Your task to perform on an android device: Go to display settings Image 0: 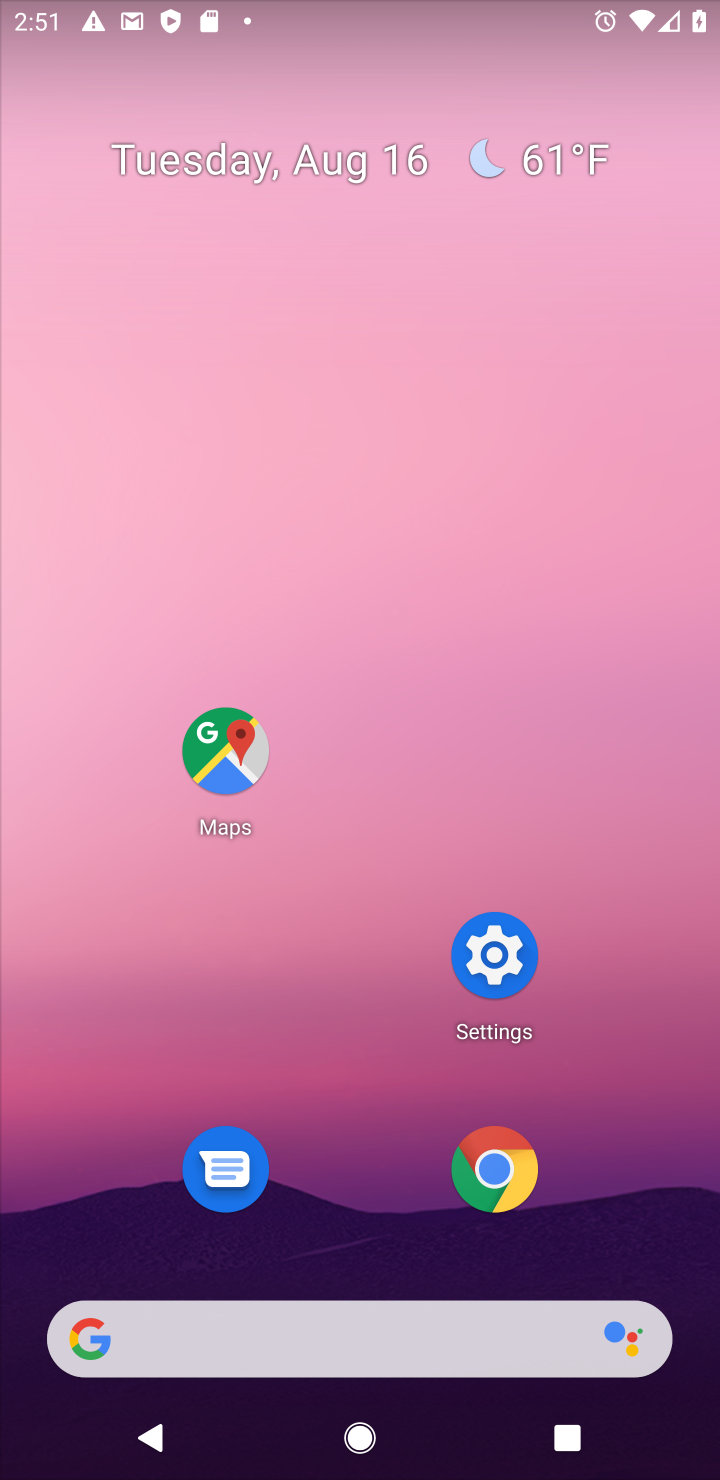
Step 0: press home button
Your task to perform on an android device: Go to display settings Image 1: 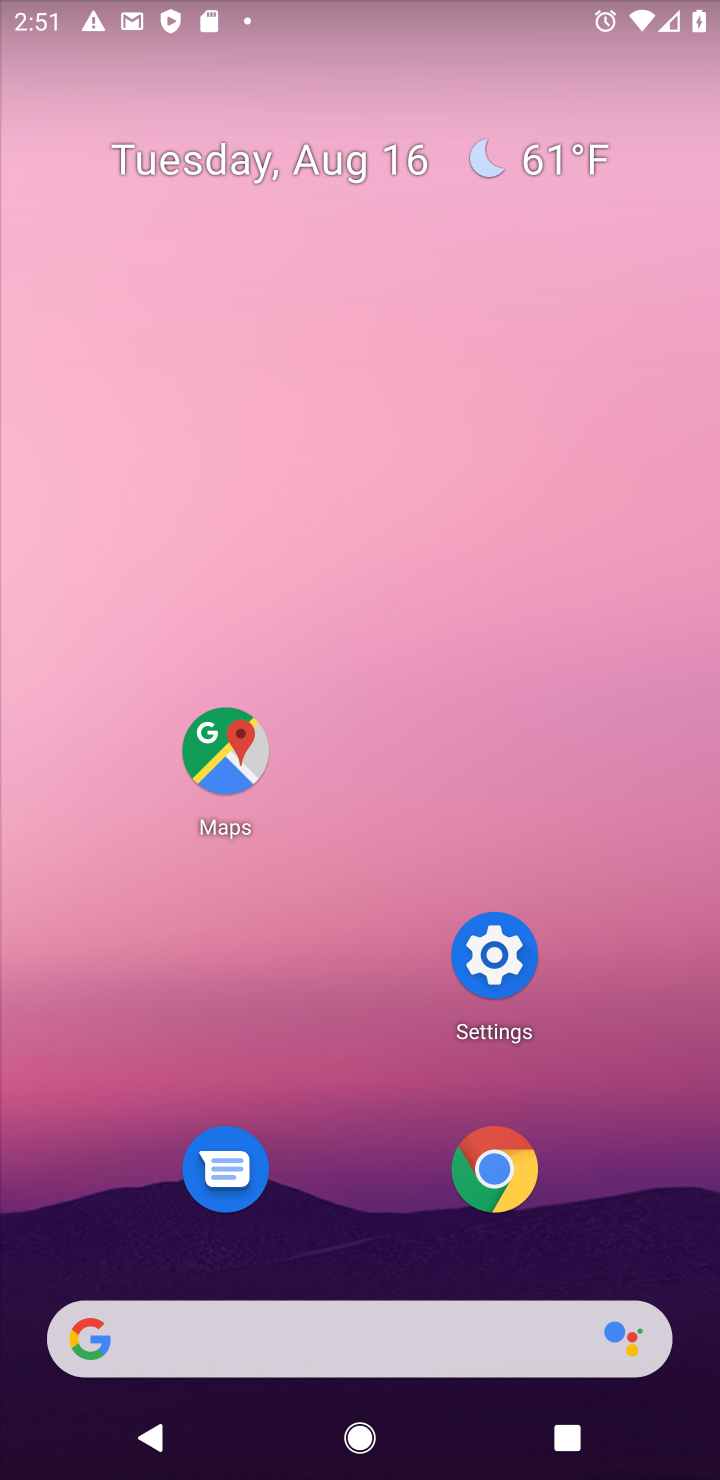
Step 1: click (501, 954)
Your task to perform on an android device: Go to display settings Image 2: 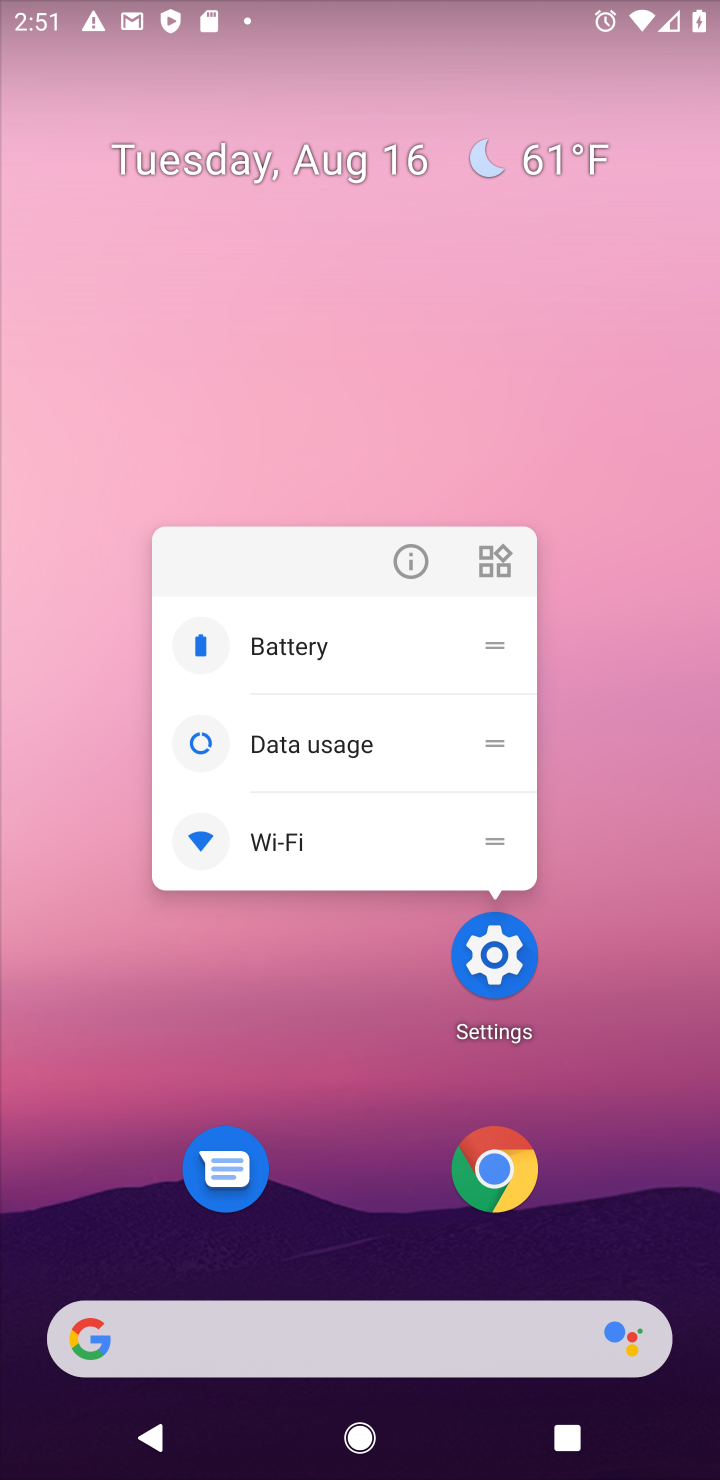
Step 2: click (501, 958)
Your task to perform on an android device: Go to display settings Image 3: 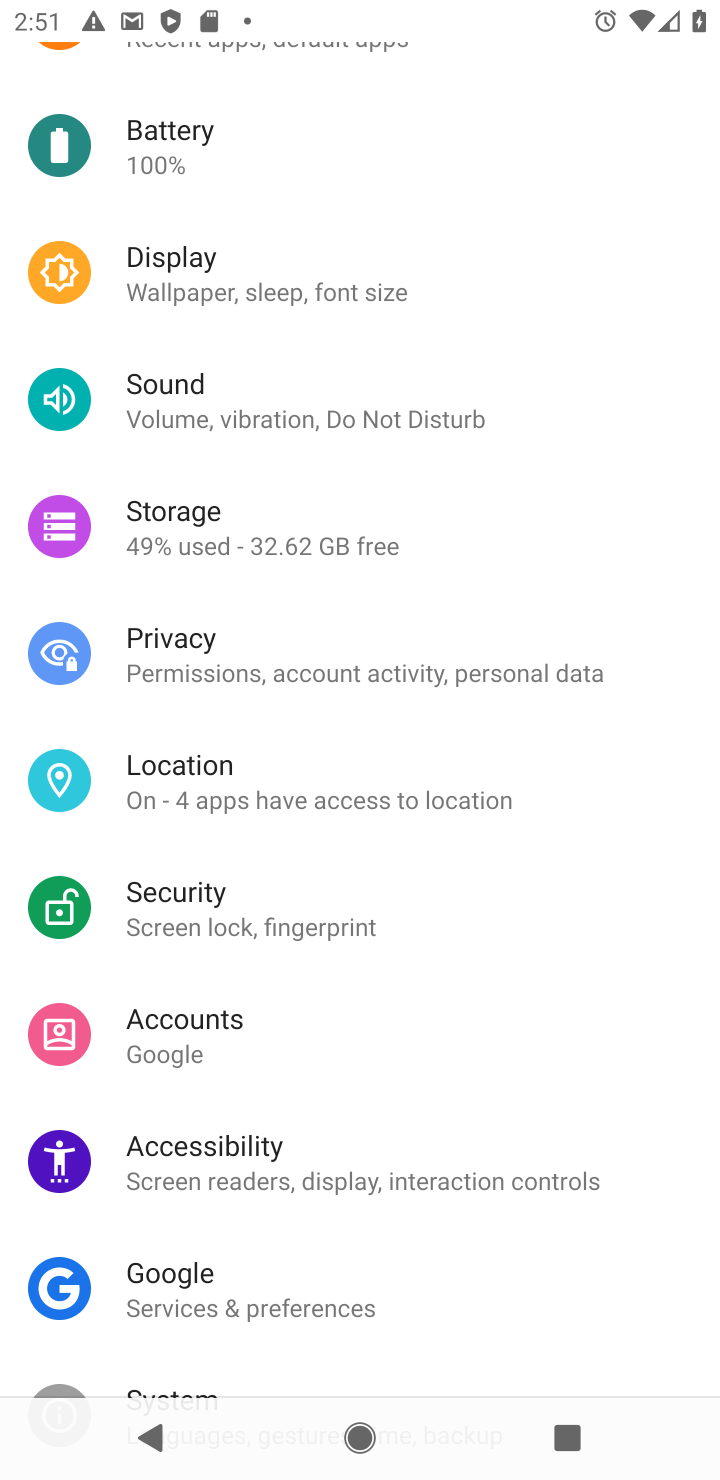
Step 3: drag from (577, 170) to (578, 1325)
Your task to perform on an android device: Go to display settings Image 4: 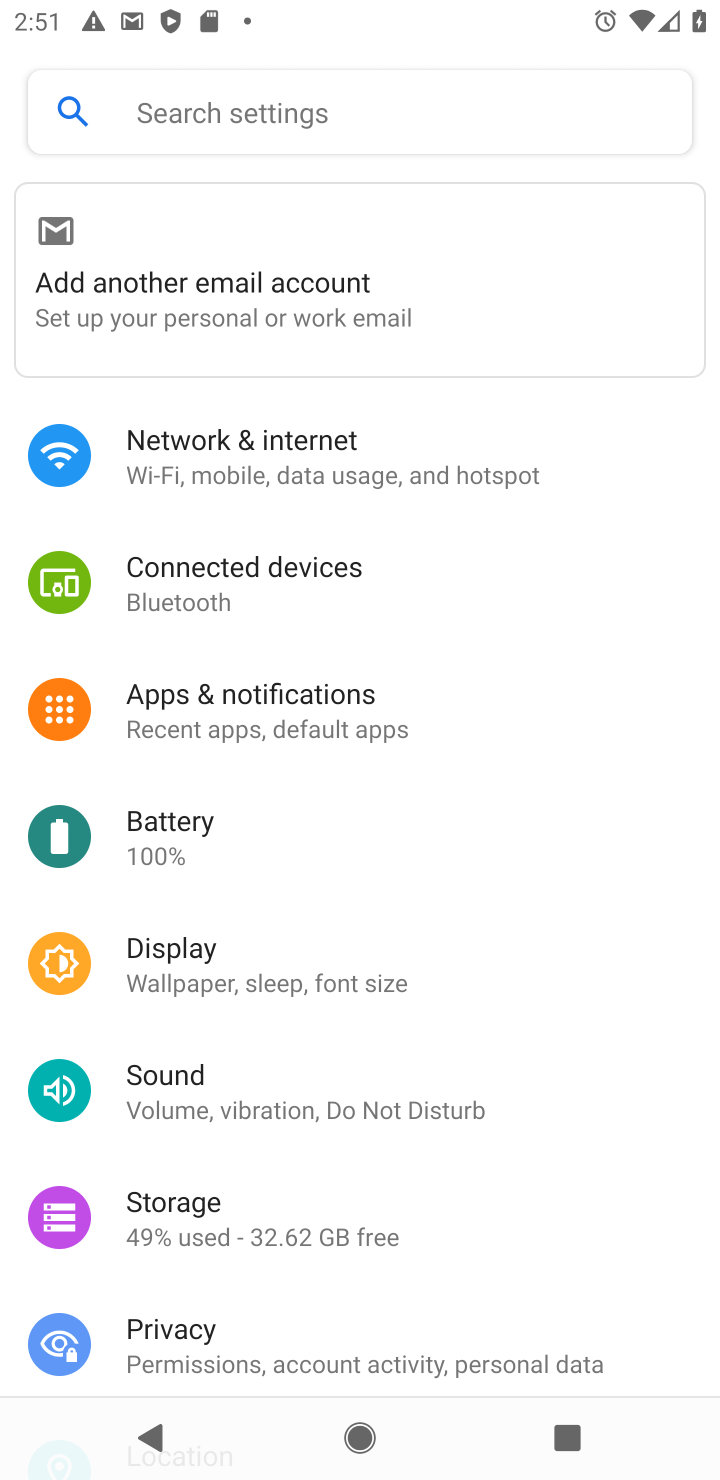
Step 4: click (220, 961)
Your task to perform on an android device: Go to display settings Image 5: 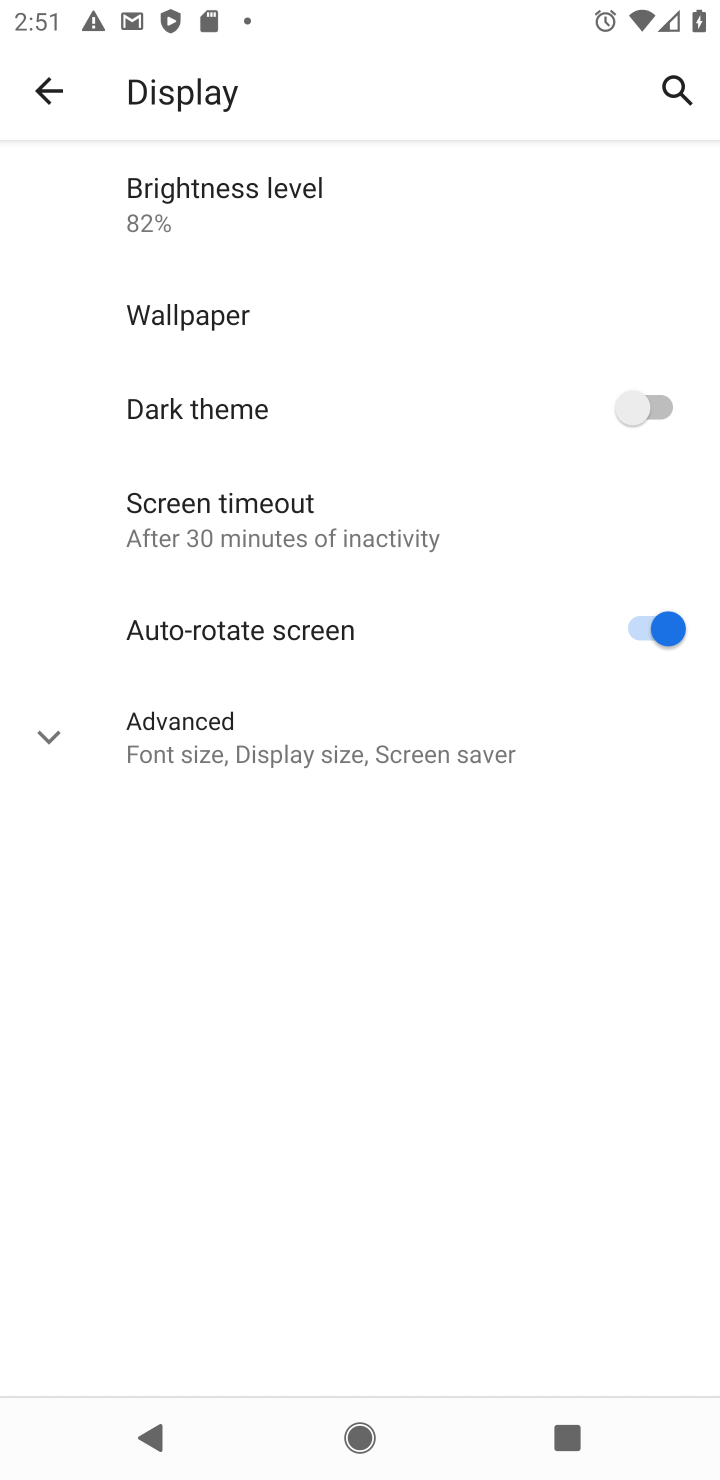
Step 5: task complete